Your task to perform on an android device: check the backup settings in the google photos Image 0: 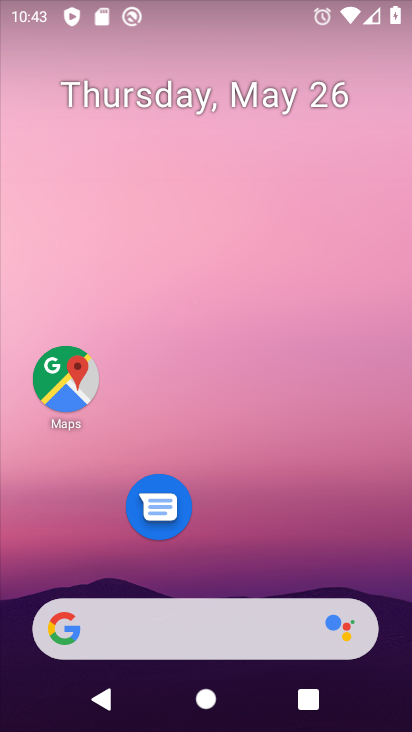
Step 0: click (170, 19)
Your task to perform on an android device: check the backup settings in the google photos Image 1: 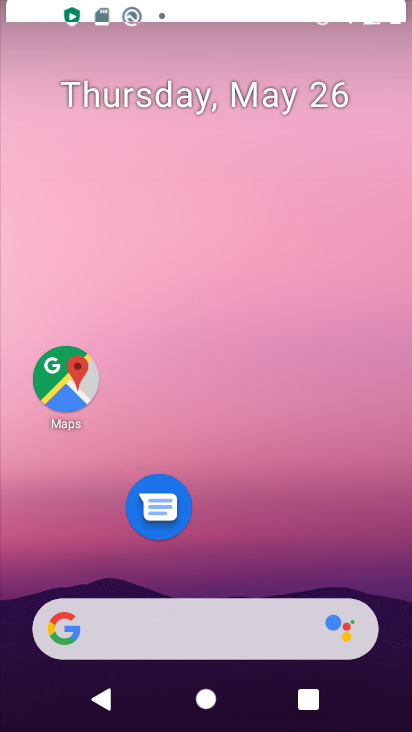
Step 1: drag from (208, 232) to (187, 88)
Your task to perform on an android device: check the backup settings in the google photos Image 2: 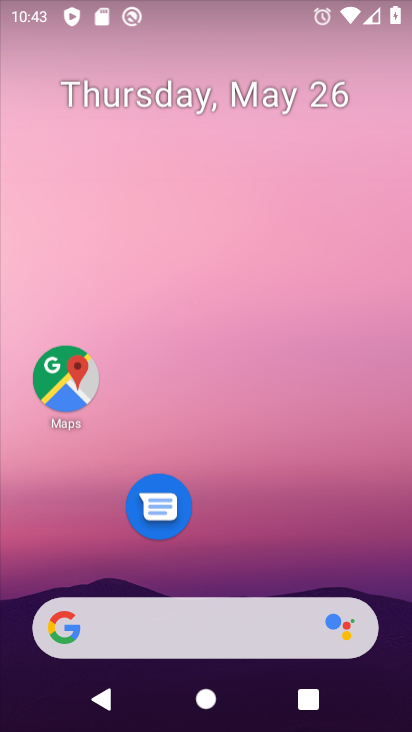
Step 2: drag from (274, 565) to (221, 172)
Your task to perform on an android device: check the backup settings in the google photos Image 3: 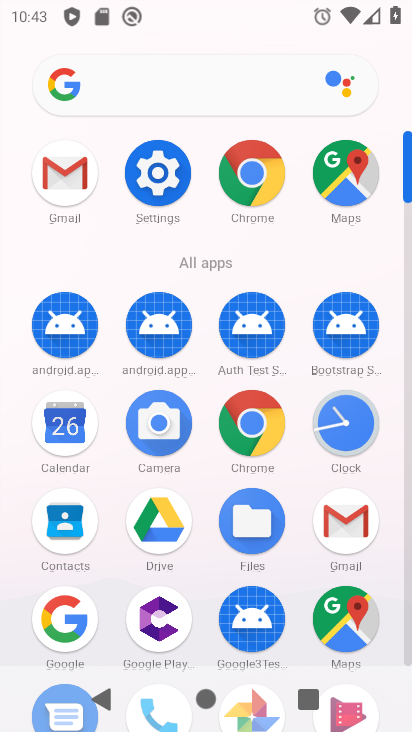
Step 3: click (234, 260)
Your task to perform on an android device: check the backup settings in the google photos Image 4: 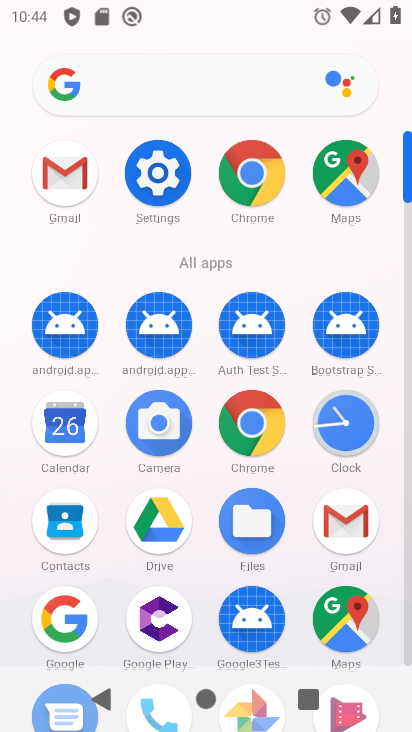
Step 4: click (47, 616)
Your task to perform on an android device: check the backup settings in the google photos Image 5: 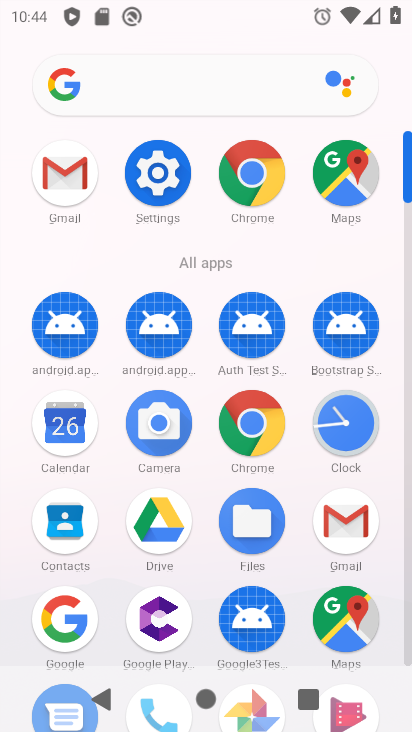
Step 5: click (49, 610)
Your task to perform on an android device: check the backup settings in the google photos Image 6: 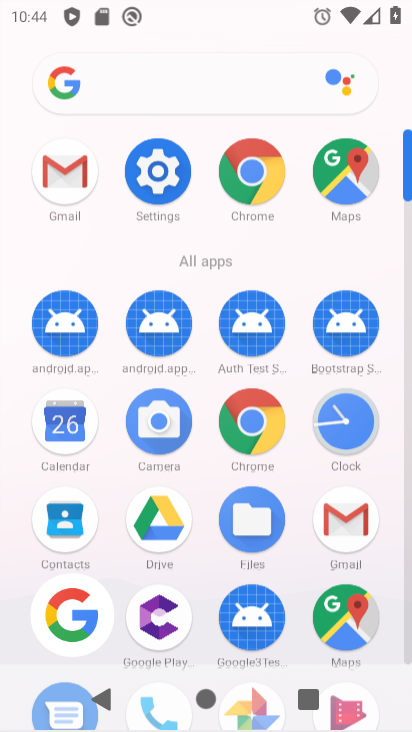
Step 6: click (56, 596)
Your task to perform on an android device: check the backup settings in the google photos Image 7: 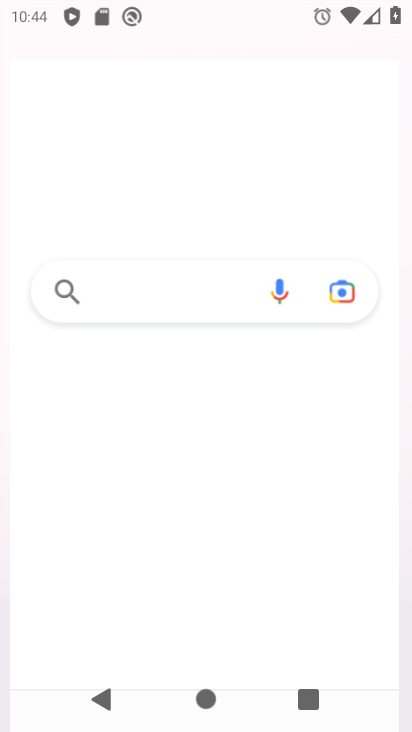
Step 7: click (56, 596)
Your task to perform on an android device: check the backup settings in the google photos Image 8: 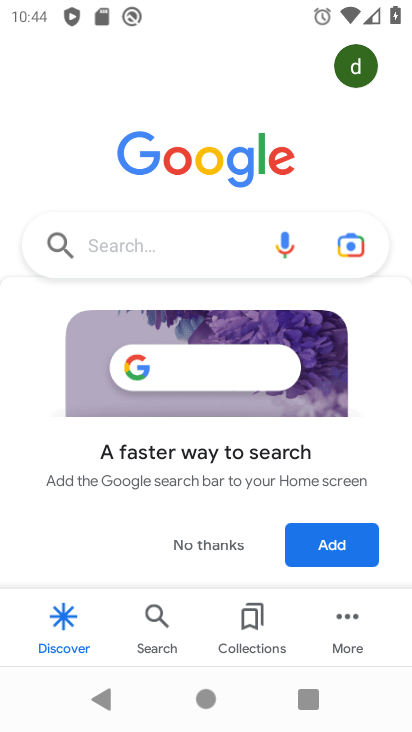
Step 8: press back button
Your task to perform on an android device: check the backup settings in the google photos Image 9: 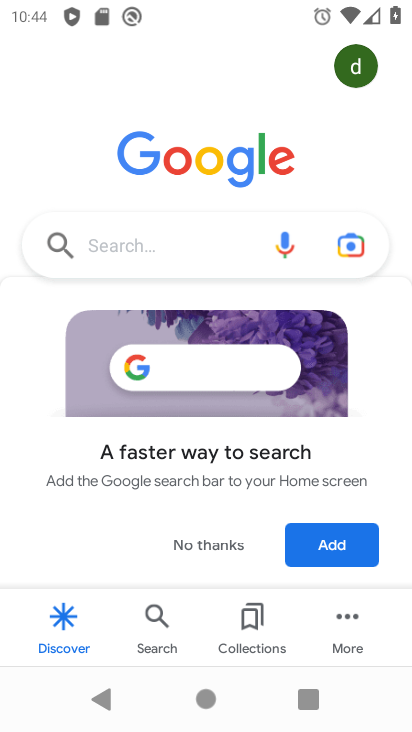
Step 9: press back button
Your task to perform on an android device: check the backup settings in the google photos Image 10: 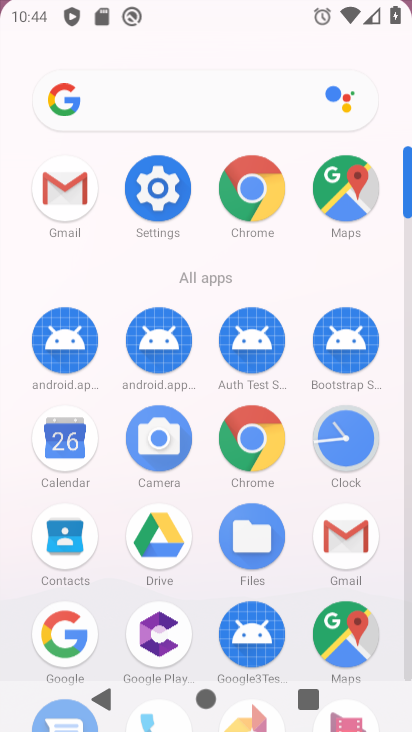
Step 10: press back button
Your task to perform on an android device: check the backup settings in the google photos Image 11: 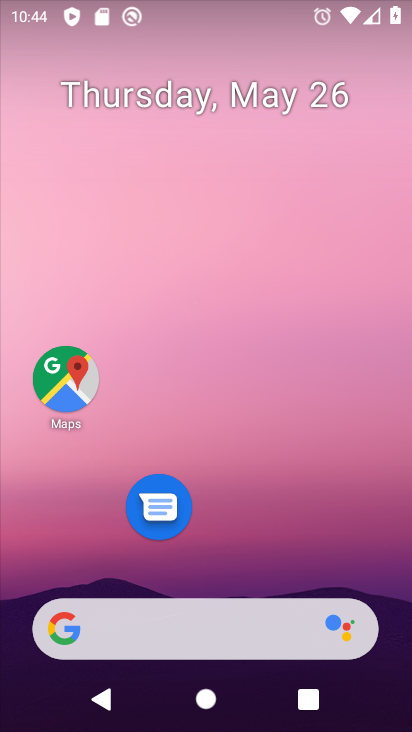
Step 11: drag from (265, 719) to (142, 59)
Your task to perform on an android device: check the backup settings in the google photos Image 12: 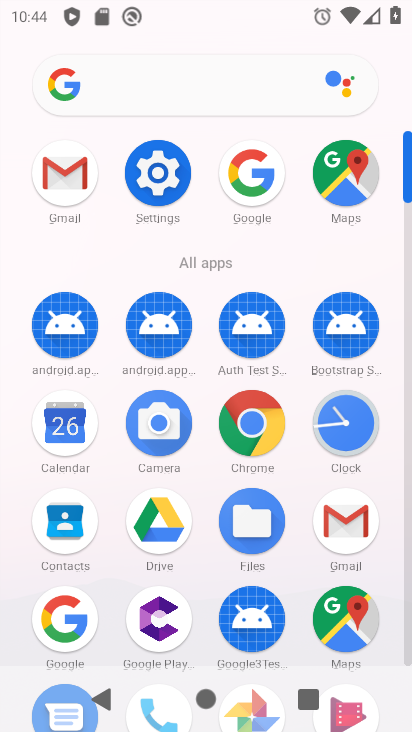
Step 12: drag from (287, 546) to (241, 261)
Your task to perform on an android device: check the backup settings in the google photos Image 13: 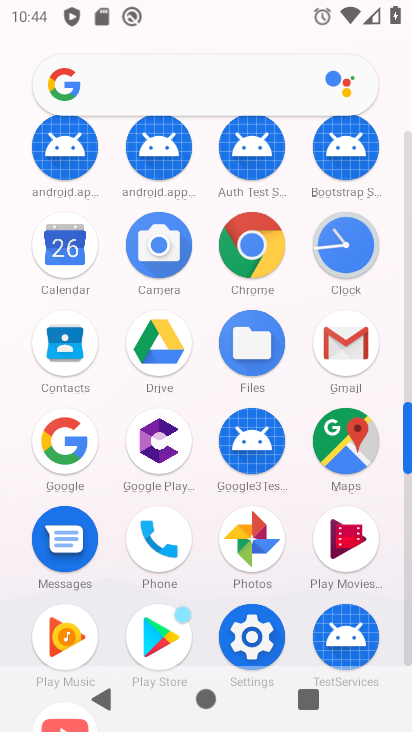
Step 13: drag from (286, 418) to (285, 228)
Your task to perform on an android device: check the backup settings in the google photos Image 14: 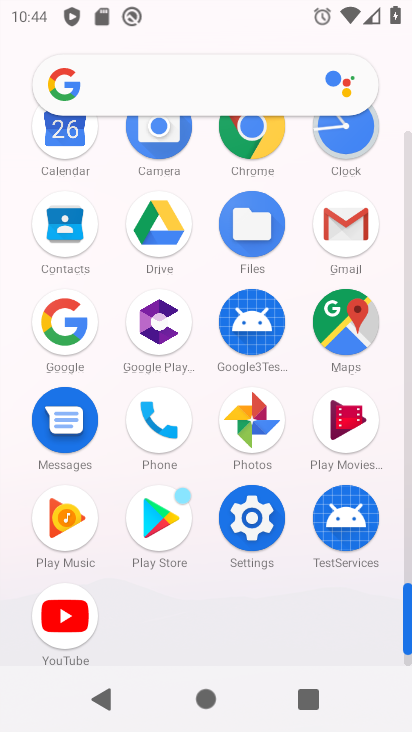
Step 14: click (253, 415)
Your task to perform on an android device: check the backup settings in the google photos Image 15: 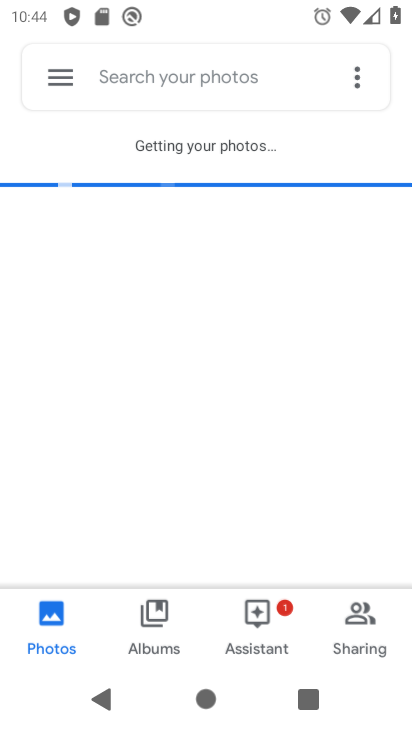
Step 15: click (252, 413)
Your task to perform on an android device: check the backup settings in the google photos Image 16: 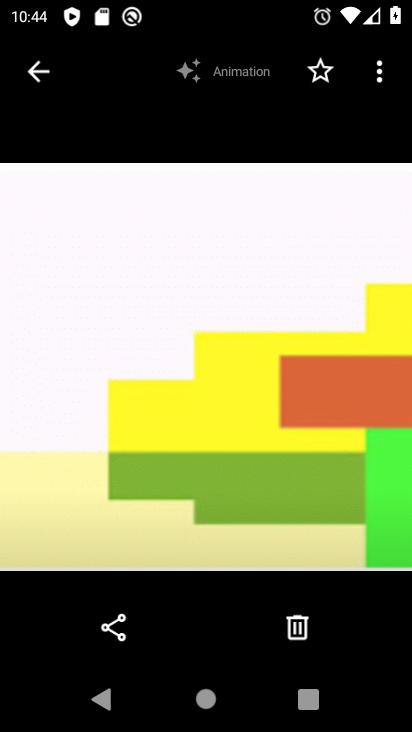
Step 16: task complete